Your task to perform on an android device: check storage Image 0: 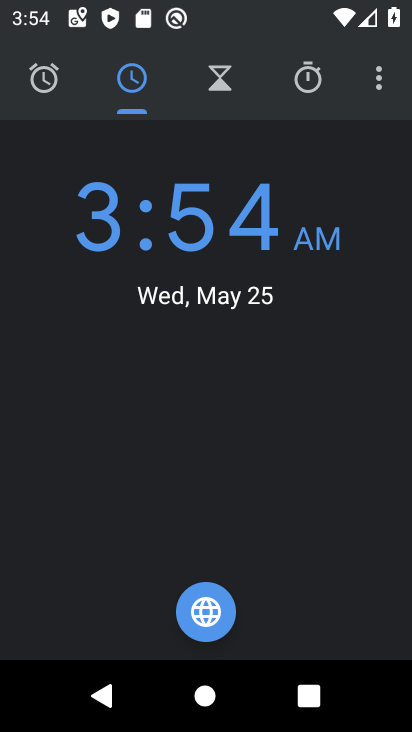
Step 0: press back button
Your task to perform on an android device: check storage Image 1: 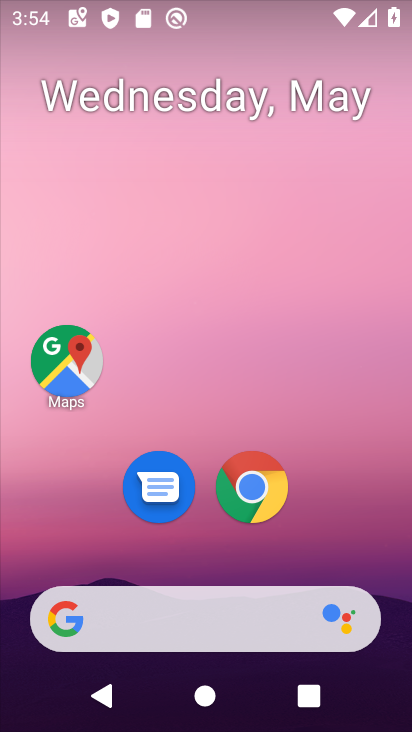
Step 1: drag from (268, 211) to (244, 42)
Your task to perform on an android device: check storage Image 2: 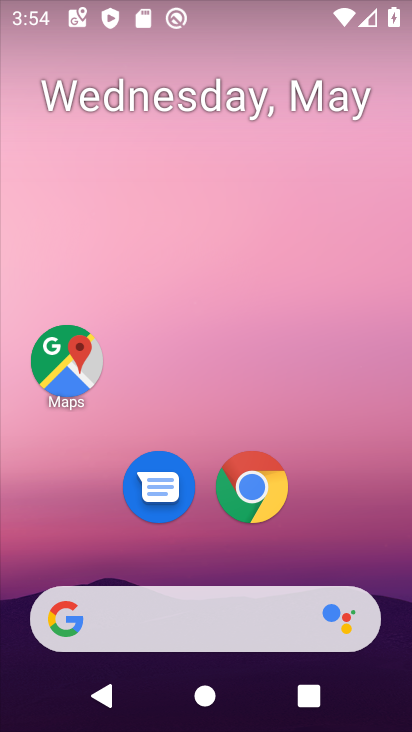
Step 2: drag from (392, 597) to (321, 27)
Your task to perform on an android device: check storage Image 3: 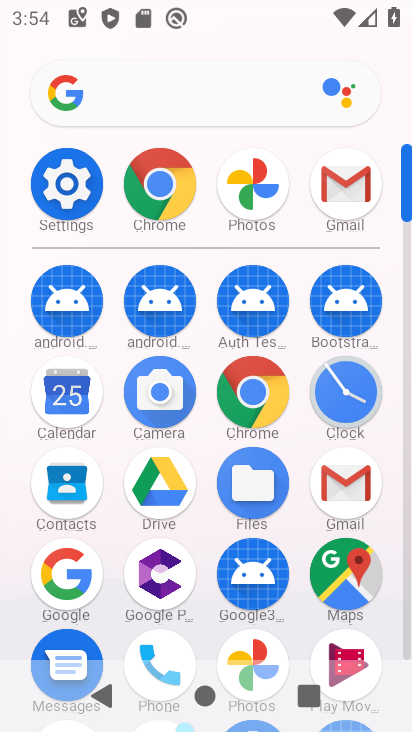
Step 3: click (65, 177)
Your task to perform on an android device: check storage Image 4: 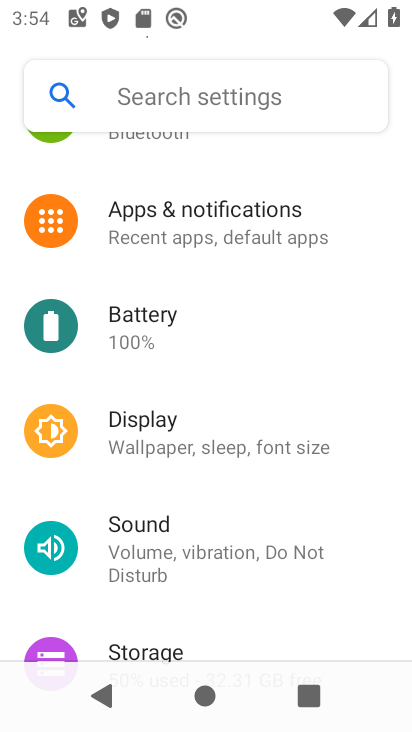
Step 4: drag from (254, 535) to (235, 140)
Your task to perform on an android device: check storage Image 5: 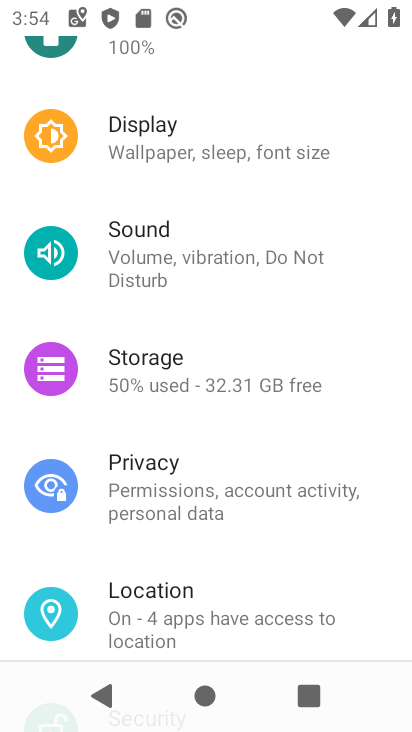
Step 5: click (187, 365)
Your task to perform on an android device: check storage Image 6: 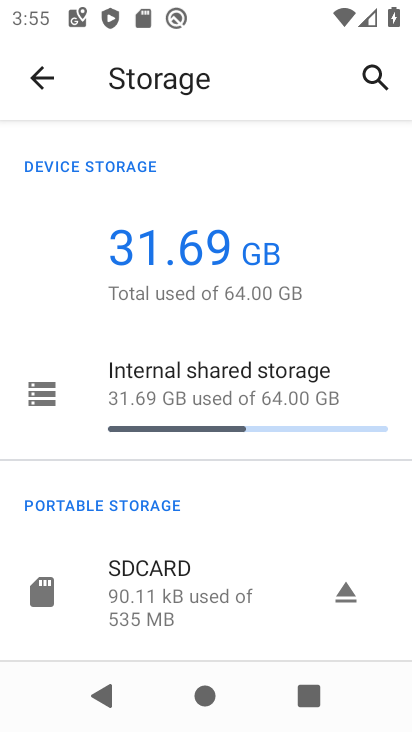
Step 6: task complete